Your task to perform on an android device: remove spam from my inbox in the gmail app Image 0: 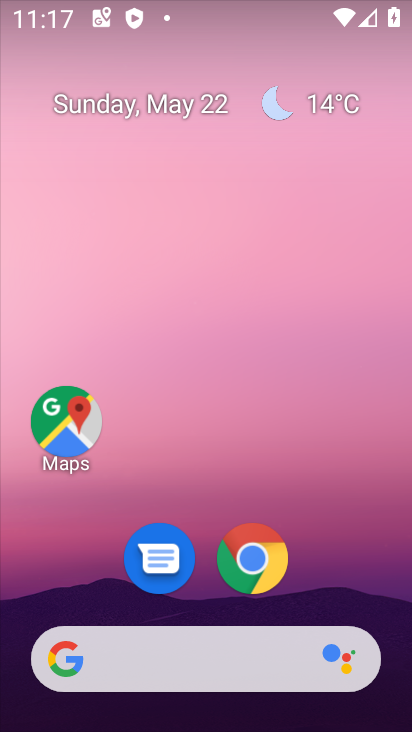
Step 0: drag from (376, 558) to (404, 0)
Your task to perform on an android device: remove spam from my inbox in the gmail app Image 1: 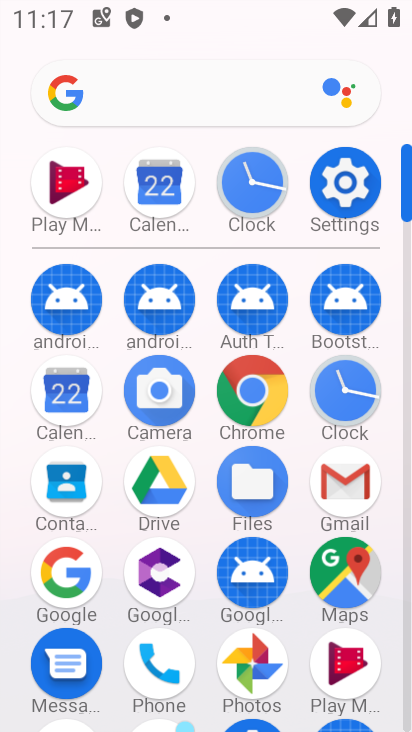
Step 1: click (345, 495)
Your task to perform on an android device: remove spam from my inbox in the gmail app Image 2: 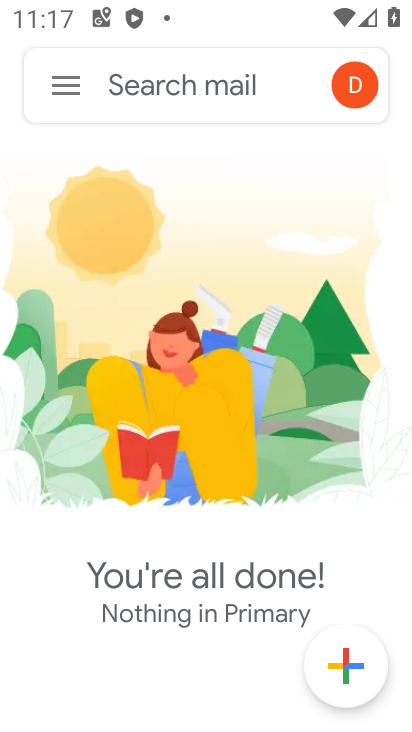
Step 2: click (50, 90)
Your task to perform on an android device: remove spam from my inbox in the gmail app Image 3: 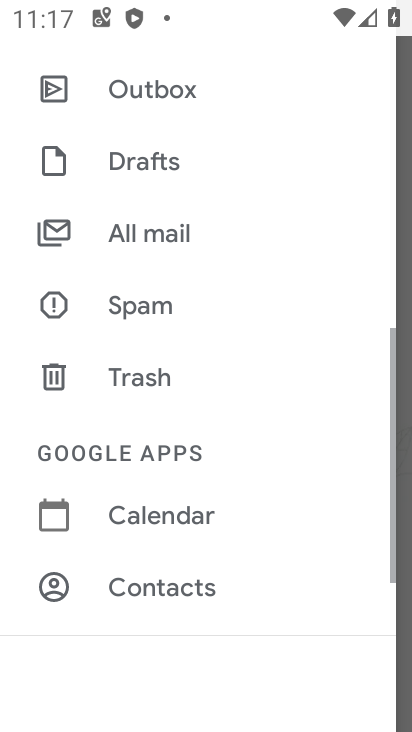
Step 3: click (105, 310)
Your task to perform on an android device: remove spam from my inbox in the gmail app Image 4: 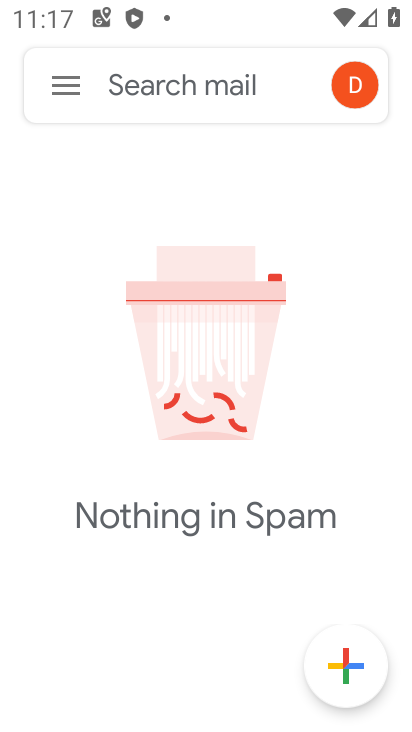
Step 4: task complete